Your task to perform on an android device: Open accessibility settings Image 0: 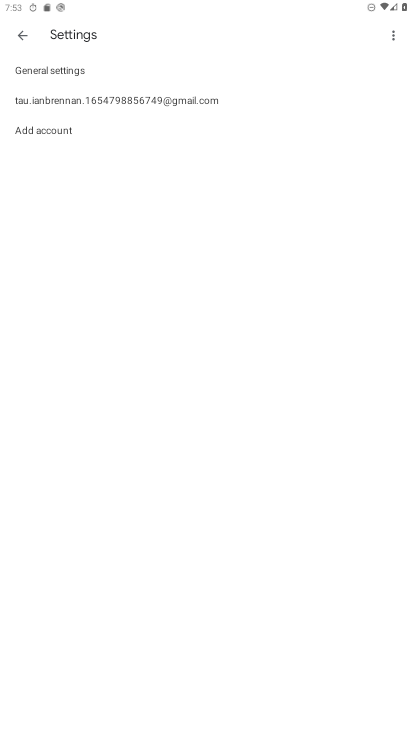
Step 0: press home button
Your task to perform on an android device: Open accessibility settings Image 1: 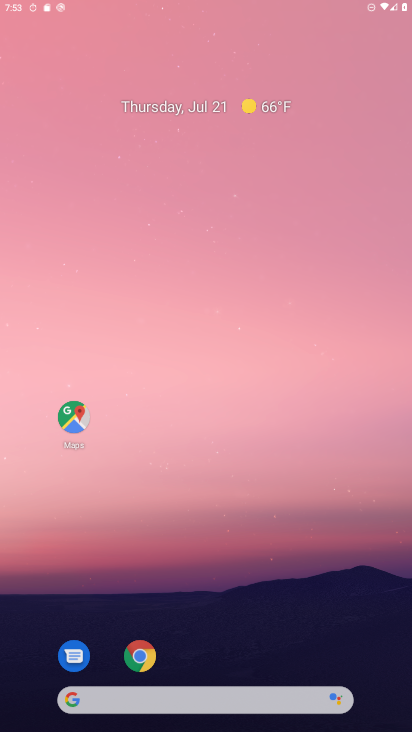
Step 1: drag from (178, 546) to (179, 183)
Your task to perform on an android device: Open accessibility settings Image 2: 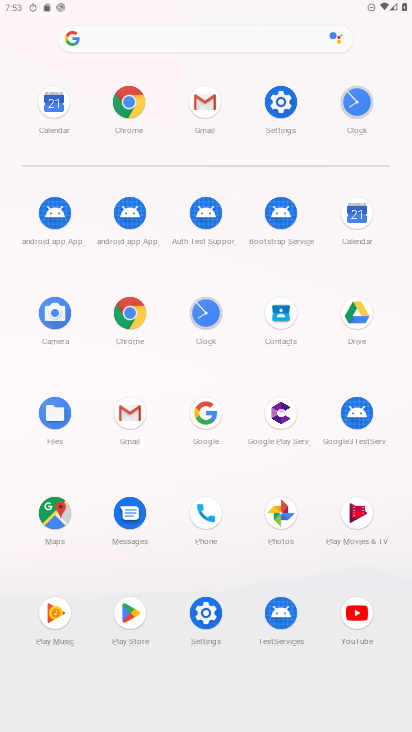
Step 2: click (281, 108)
Your task to perform on an android device: Open accessibility settings Image 3: 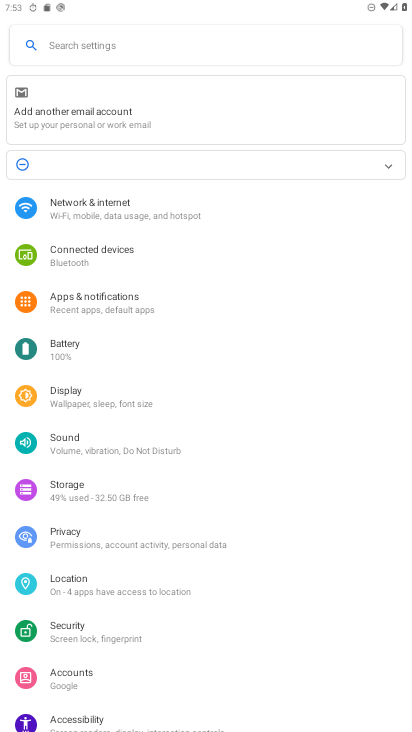
Step 3: drag from (142, 629) to (208, 275)
Your task to perform on an android device: Open accessibility settings Image 4: 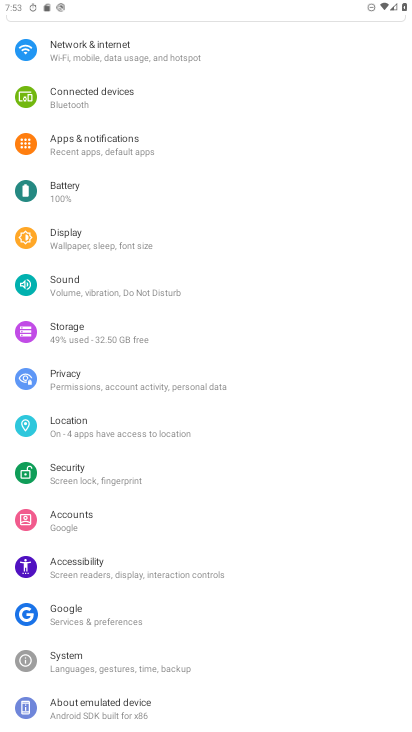
Step 4: click (85, 569)
Your task to perform on an android device: Open accessibility settings Image 5: 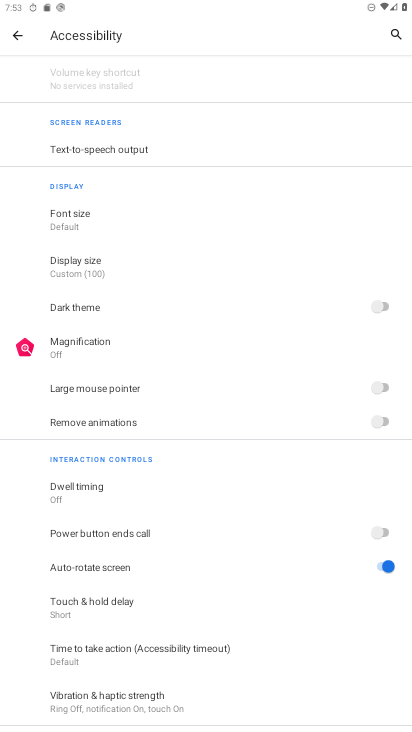
Step 5: task complete